Your task to perform on an android device: Open eBay Image 0: 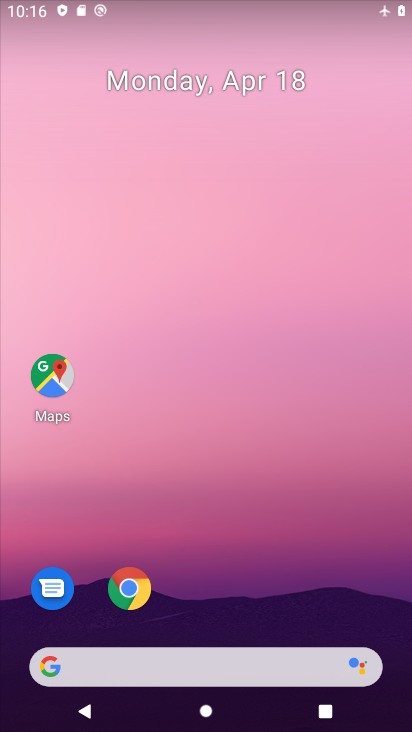
Step 0: drag from (245, 485) to (69, 3)
Your task to perform on an android device: Open eBay Image 1: 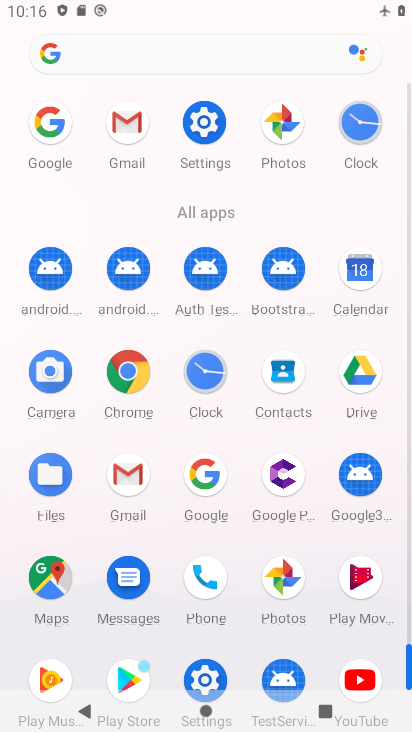
Step 1: click (129, 370)
Your task to perform on an android device: Open eBay Image 2: 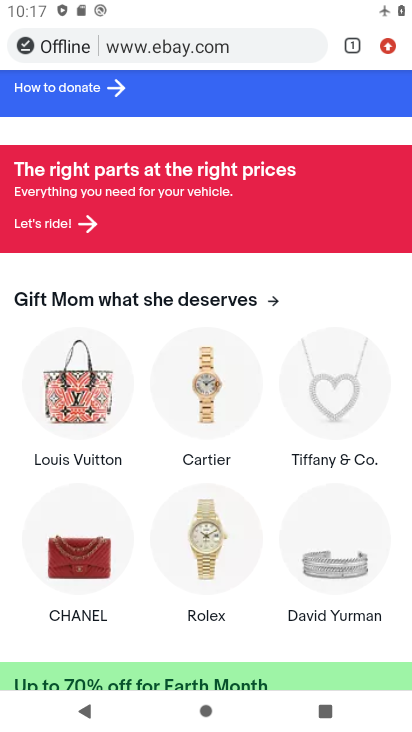
Step 2: task complete